Your task to perform on an android device: check storage Image 0: 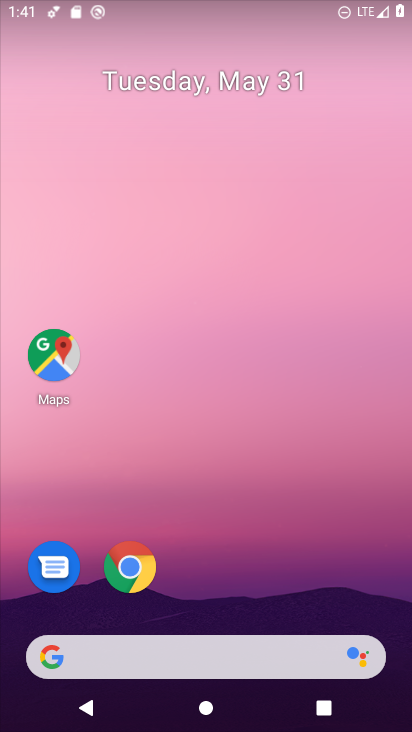
Step 0: drag from (206, 559) to (220, 132)
Your task to perform on an android device: check storage Image 1: 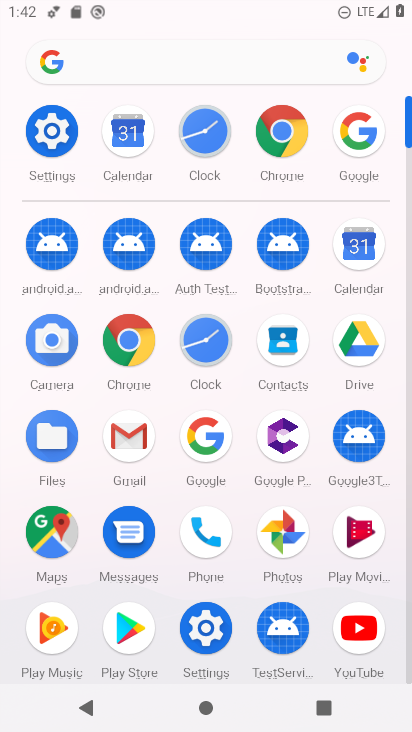
Step 1: click (72, 135)
Your task to perform on an android device: check storage Image 2: 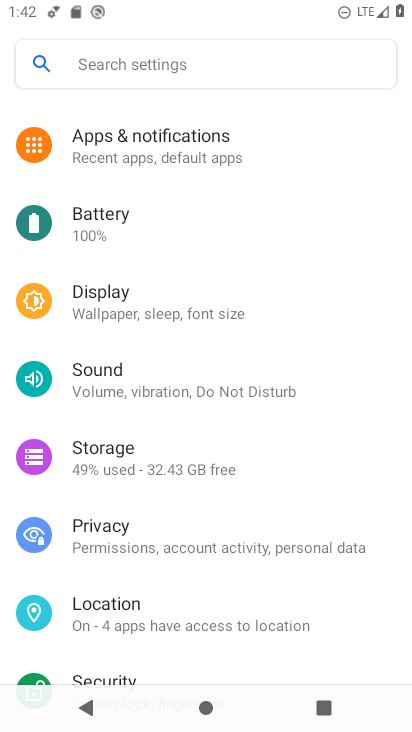
Step 2: click (161, 473)
Your task to perform on an android device: check storage Image 3: 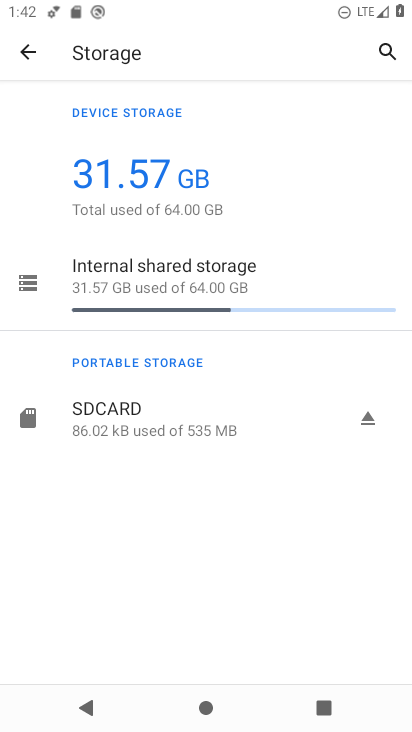
Step 3: task complete